Your task to perform on an android device: delete browsing data in the chrome app Image 0: 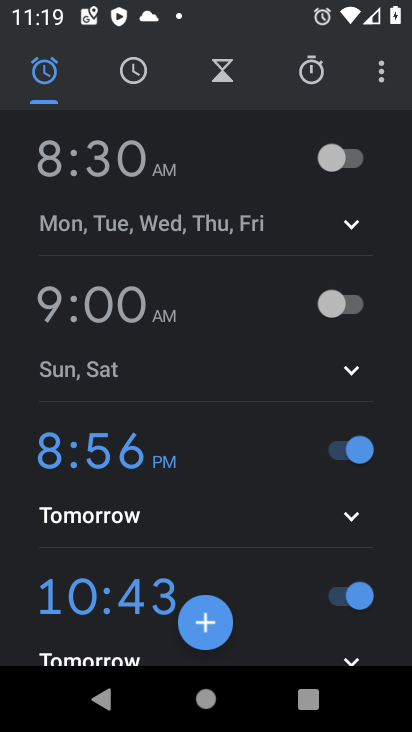
Step 0: press home button
Your task to perform on an android device: delete browsing data in the chrome app Image 1: 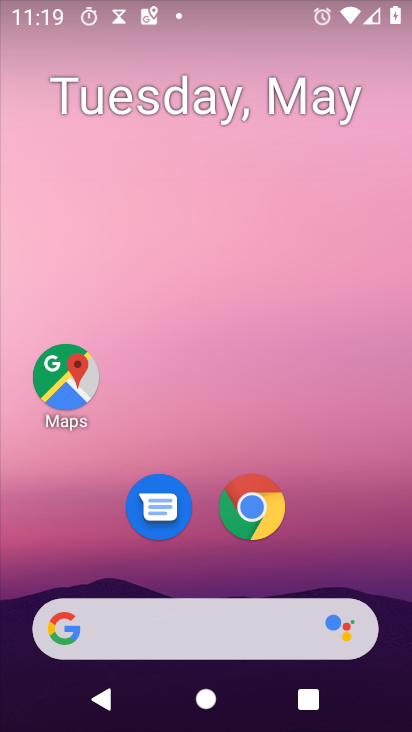
Step 1: click (256, 514)
Your task to perform on an android device: delete browsing data in the chrome app Image 2: 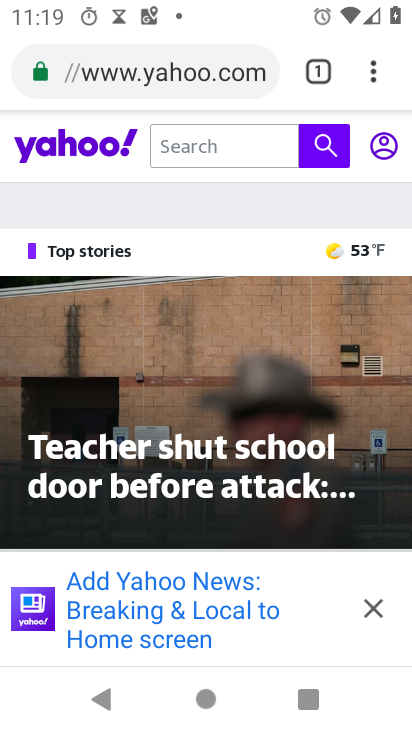
Step 2: click (370, 64)
Your task to perform on an android device: delete browsing data in the chrome app Image 3: 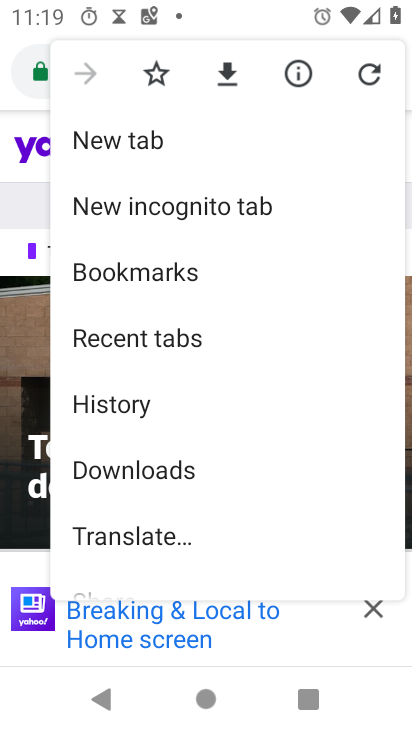
Step 3: click (118, 407)
Your task to perform on an android device: delete browsing data in the chrome app Image 4: 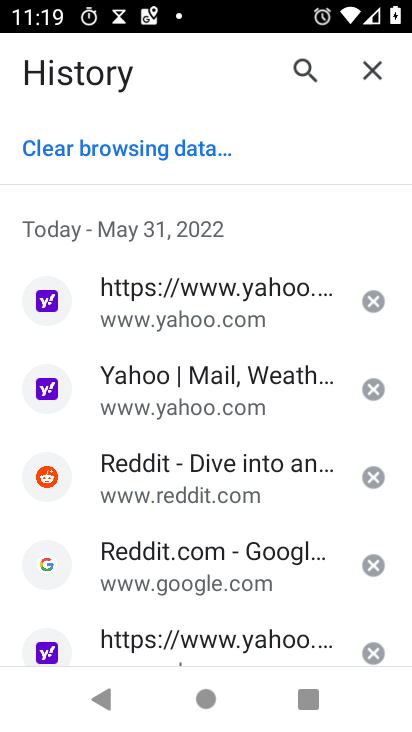
Step 4: click (152, 149)
Your task to perform on an android device: delete browsing data in the chrome app Image 5: 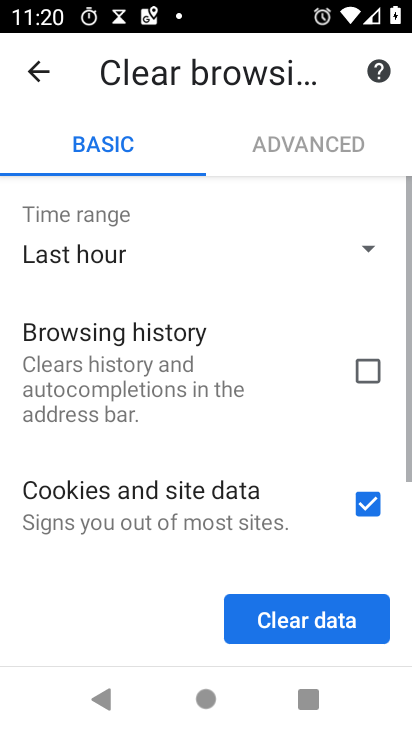
Step 5: click (380, 366)
Your task to perform on an android device: delete browsing data in the chrome app Image 6: 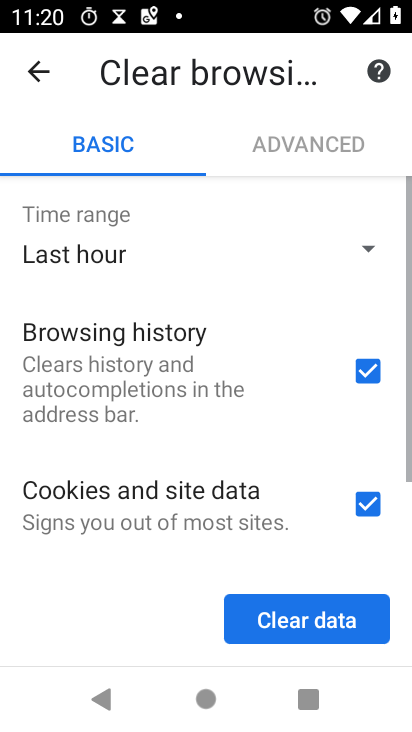
Step 6: click (303, 616)
Your task to perform on an android device: delete browsing data in the chrome app Image 7: 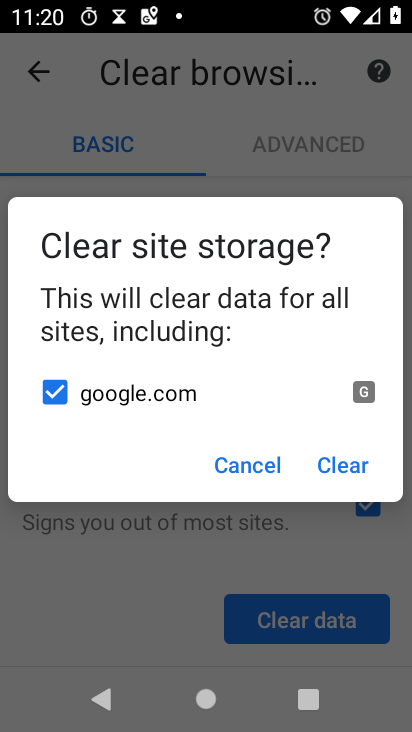
Step 7: click (340, 466)
Your task to perform on an android device: delete browsing data in the chrome app Image 8: 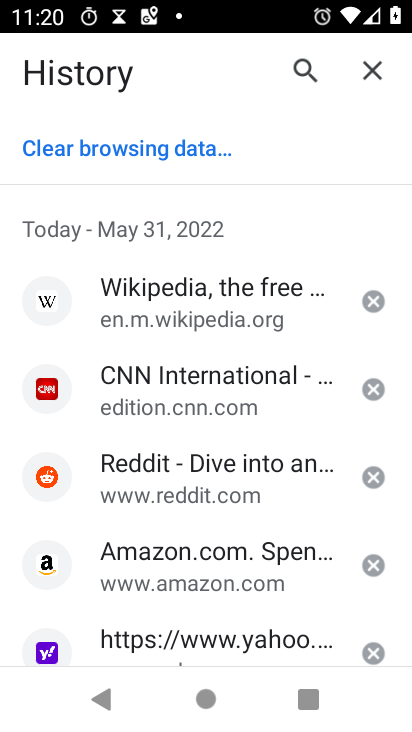
Step 8: task complete